Your task to perform on an android device: uninstall "Walmart Shopping & Grocery" Image 0: 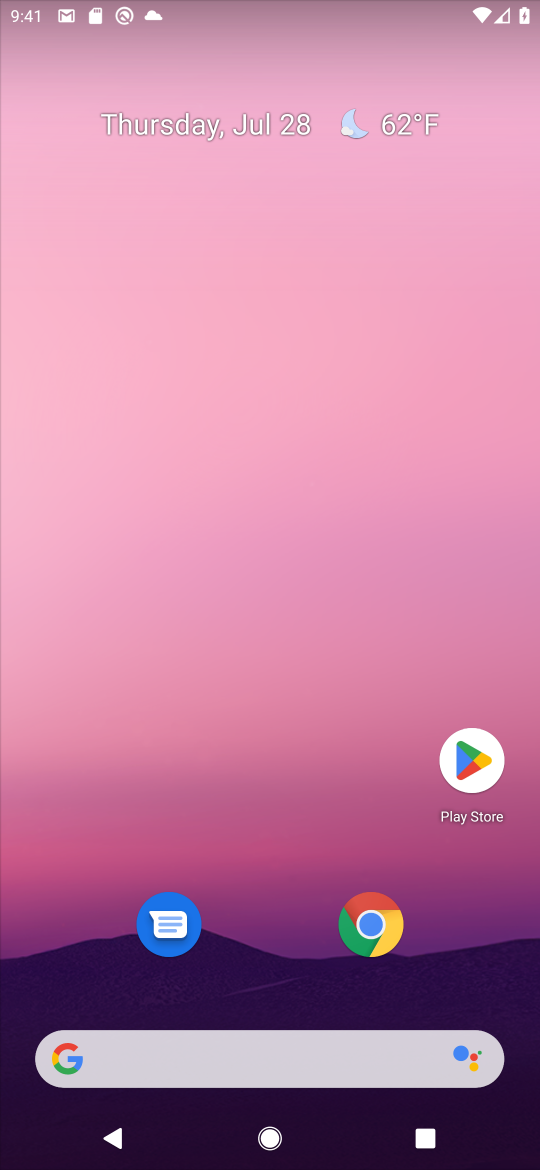
Step 0: press home button
Your task to perform on an android device: uninstall "Walmart Shopping & Grocery" Image 1: 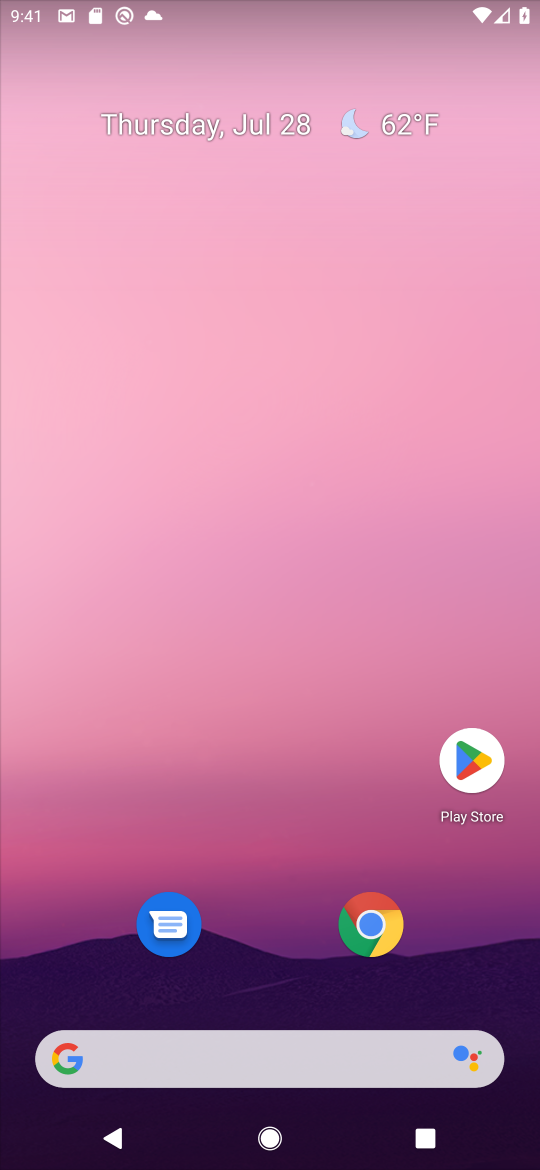
Step 1: click (477, 766)
Your task to perform on an android device: uninstall "Walmart Shopping & Grocery" Image 2: 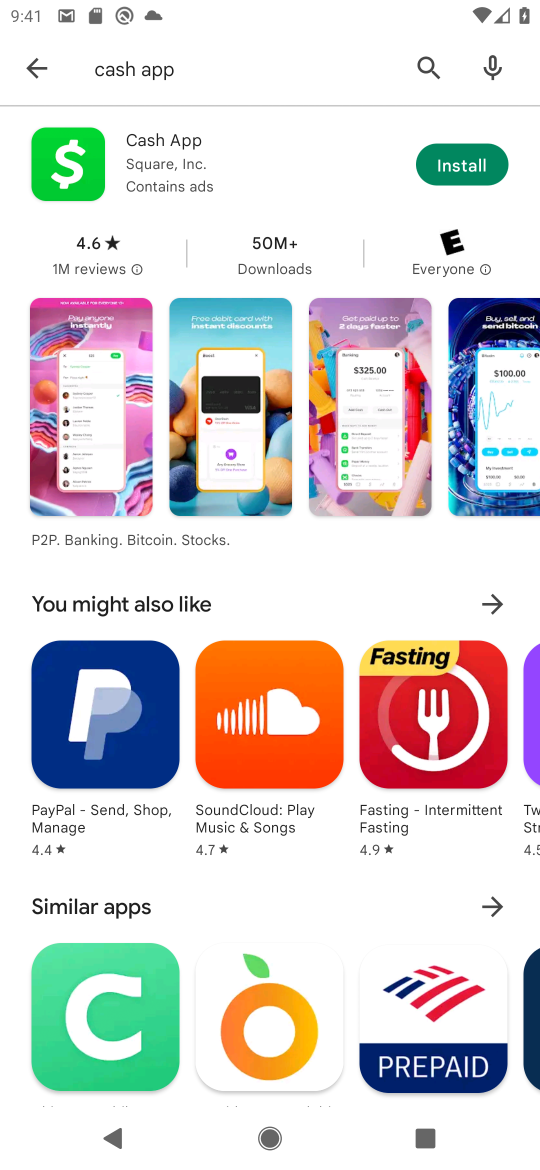
Step 2: click (436, 61)
Your task to perform on an android device: uninstall "Walmart Shopping & Grocery" Image 3: 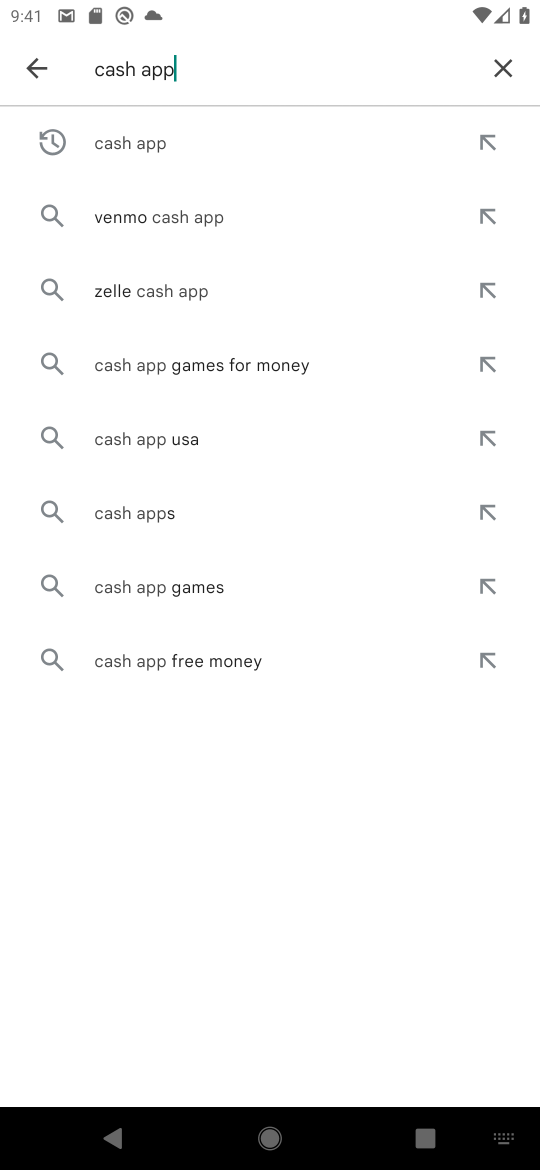
Step 3: click (498, 61)
Your task to perform on an android device: uninstall "Walmart Shopping & Grocery" Image 4: 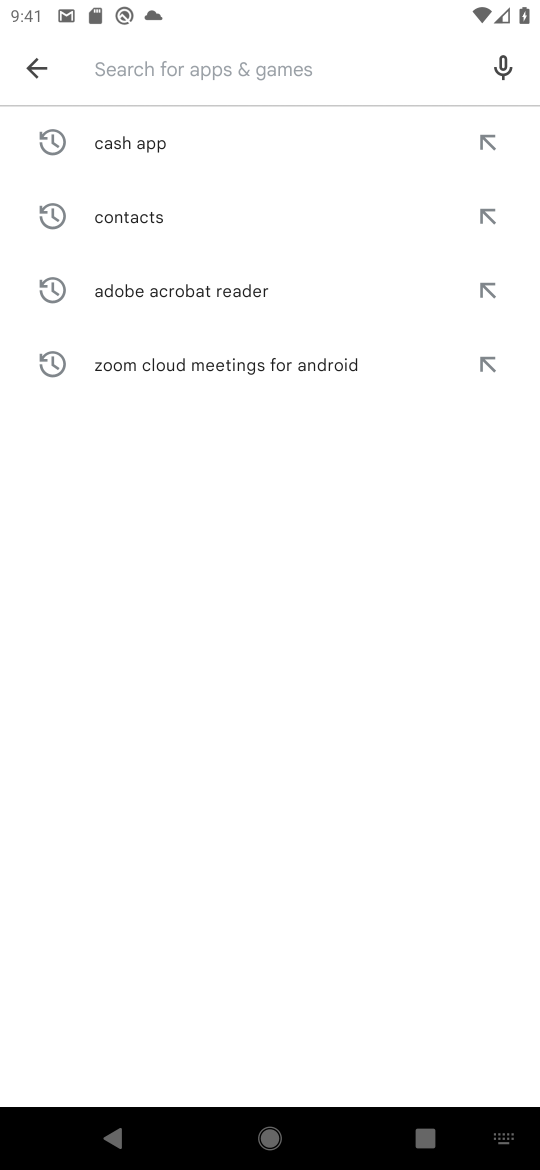
Step 4: type "Walmart Shopping & Grocery"
Your task to perform on an android device: uninstall "Walmart Shopping & Grocery" Image 5: 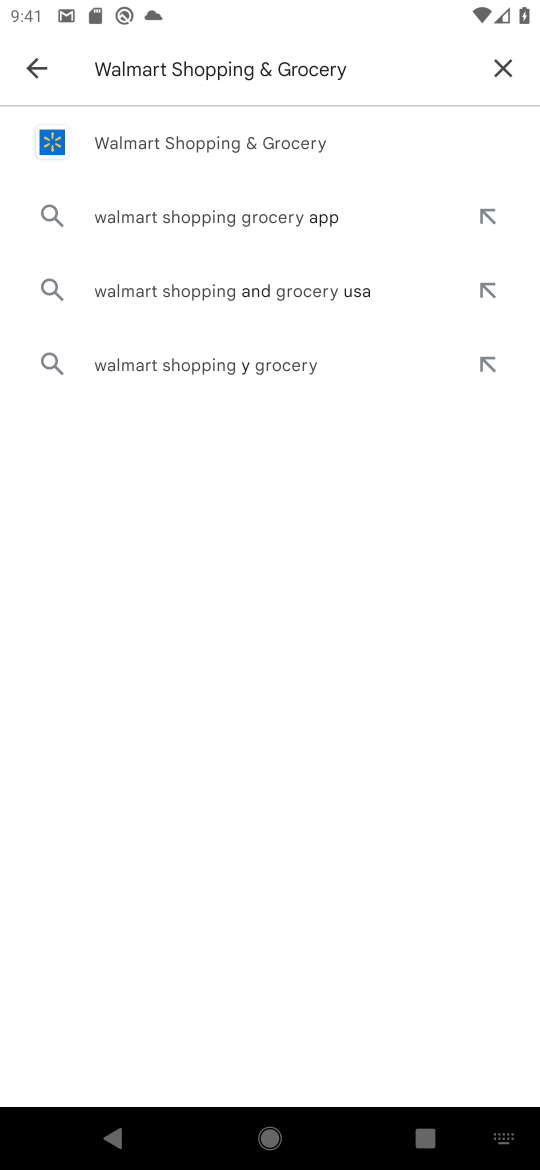
Step 5: click (219, 134)
Your task to perform on an android device: uninstall "Walmart Shopping & Grocery" Image 6: 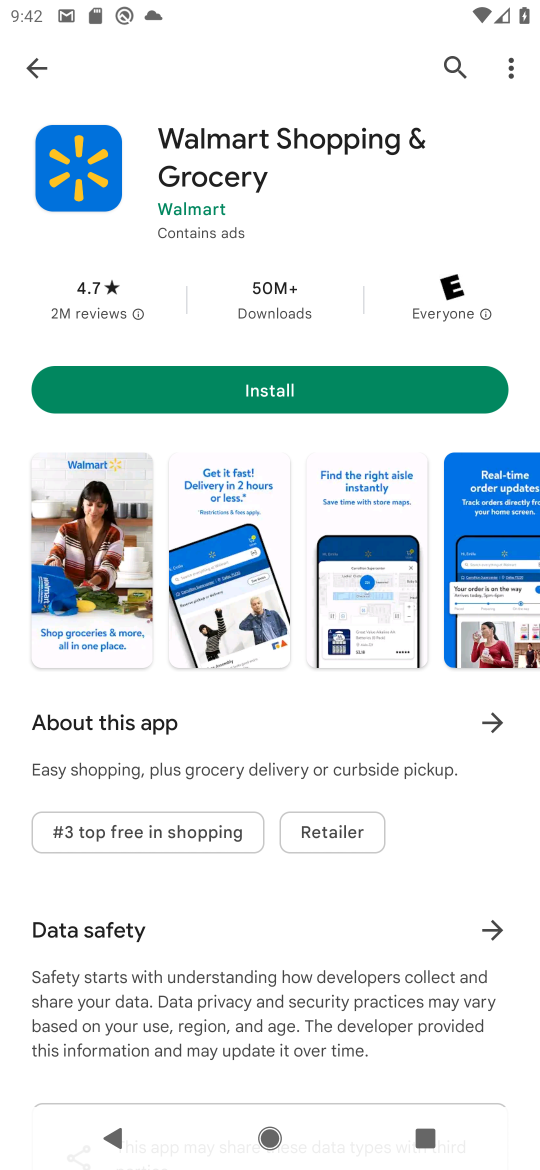
Step 6: task complete